Your task to perform on an android device: Open location settings Image 0: 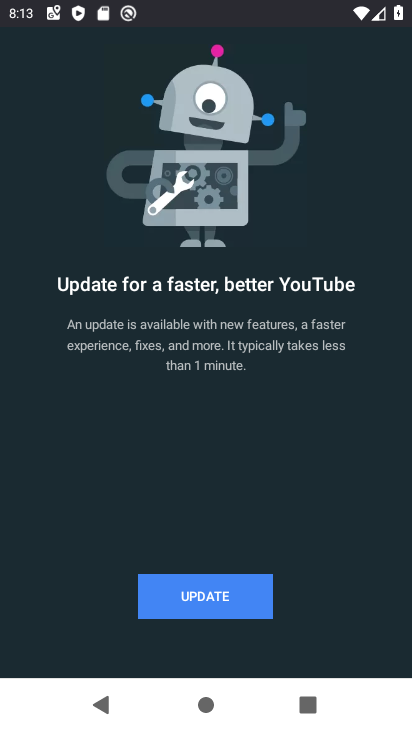
Step 0: press home button
Your task to perform on an android device: Open location settings Image 1: 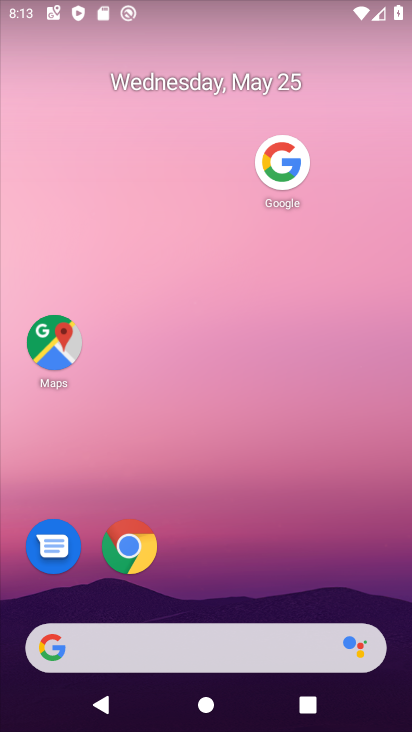
Step 1: drag from (250, 642) to (397, 0)
Your task to perform on an android device: Open location settings Image 2: 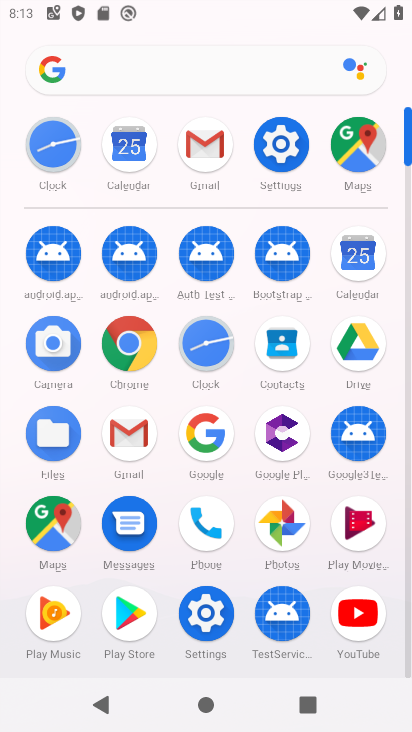
Step 2: click (278, 160)
Your task to perform on an android device: Open location settings Image 3: 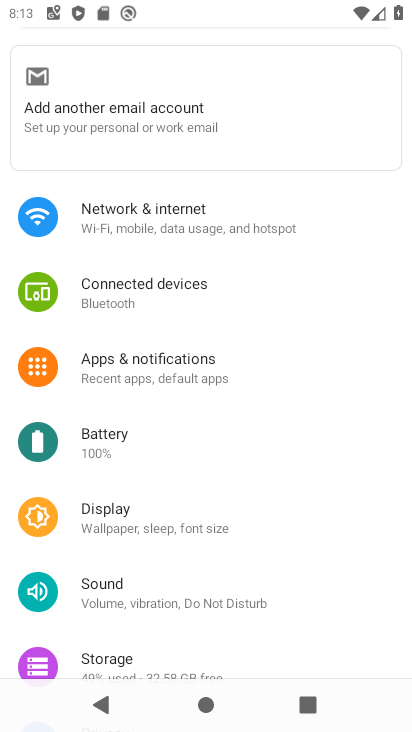
Step 3: drag from (290, 599) to (303, 218)
Your task to perform on an android device: Open location settings Image 4: 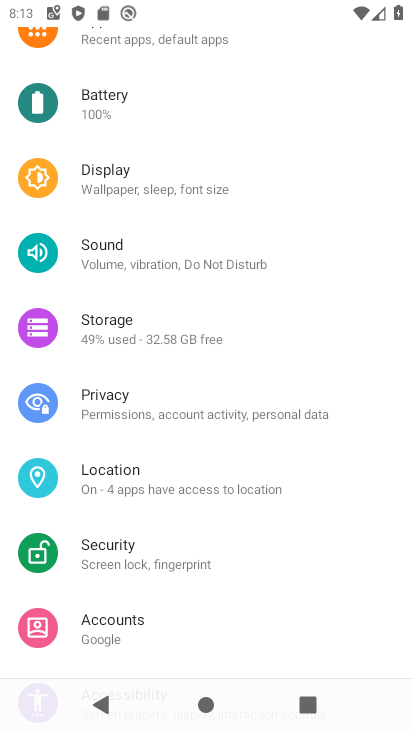
Step 4: click (126, 481)
Your task to perform on an android device: Open location settings Image 5: 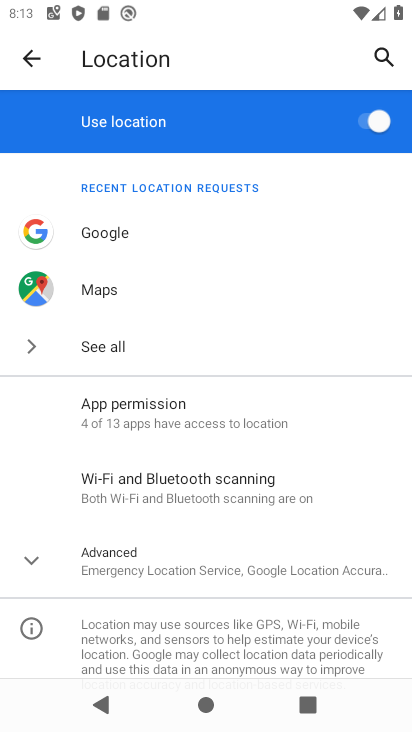
Step 5: task complete